Your task to perform on an android device: change your default location settings in chrome Image 0: 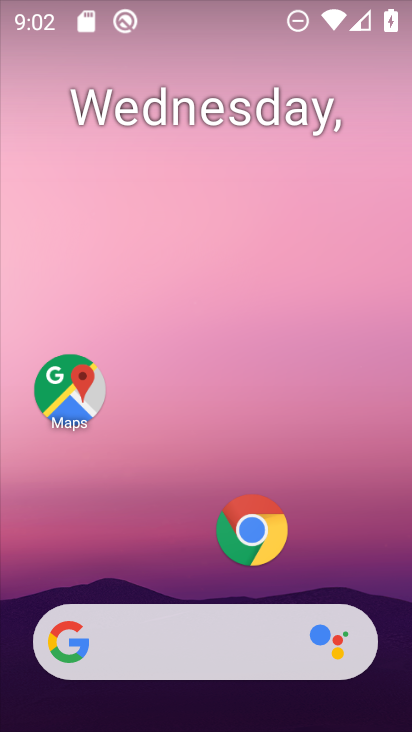
Step 0: click (254, 547)
Your task to perform on an android device: change your default location settings in chrome Image 1: 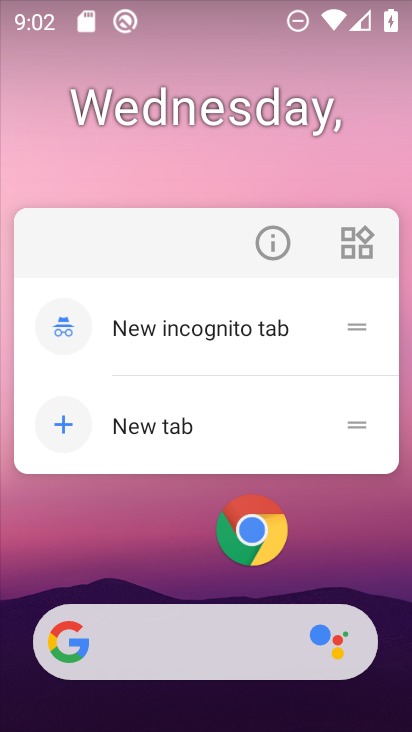
Step 1: click (258, 532)
Your task to perform on an android device: change your default location settings in chrome Image 2: 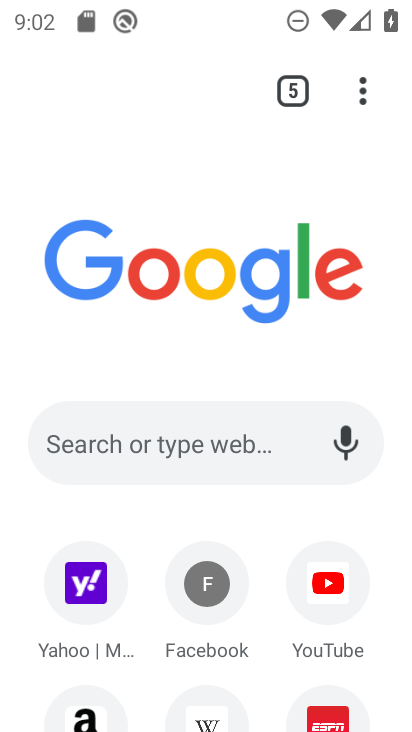
Step 2: drag from (366, 85) to (103, 561)
Your task to perform on an android device: change your default location settings in chrome Image 3: 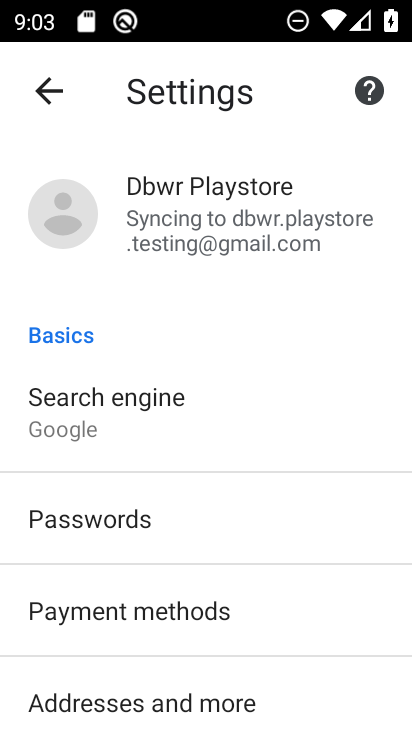
Step 3: drag from (150, 702) to (172, 249)
Your task to perform on an android device: change your default location settings in chrome Image 4: 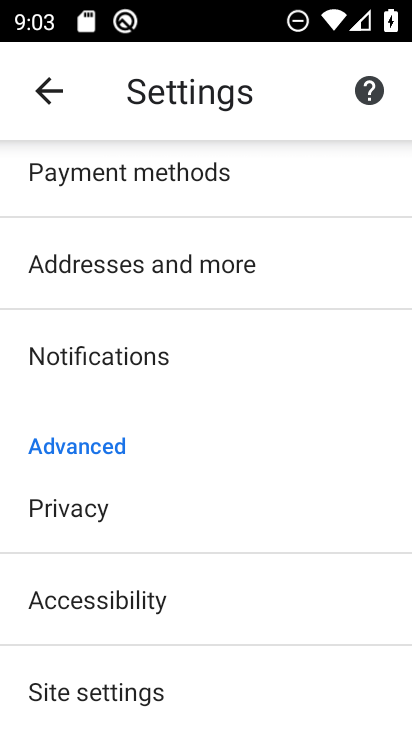
Step 4: drag from (118, 604) to (157, 326)
Your task to perform on an android device: change your default location settings in chrome Image 5: 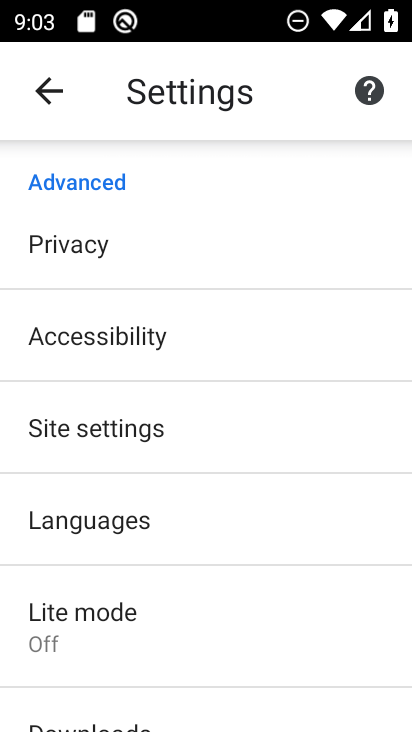
Step 5: click (137, 428)
Your task to perform on an android device: change your default location settings in chrome Image 6: 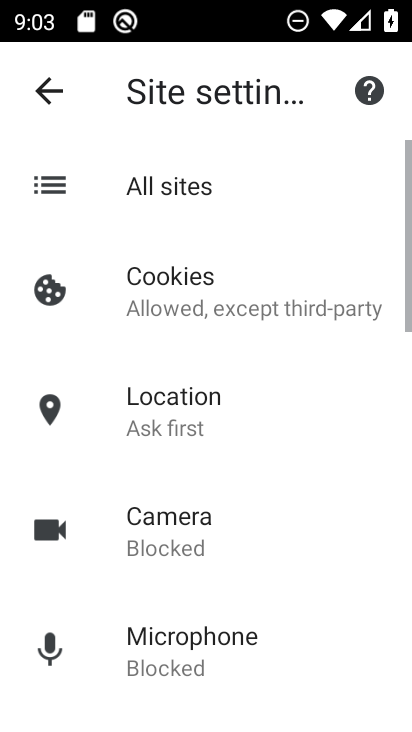
Step 6: click (168, 394)
Your task to perform on an android device: change your default location settings in chrome Image 7: 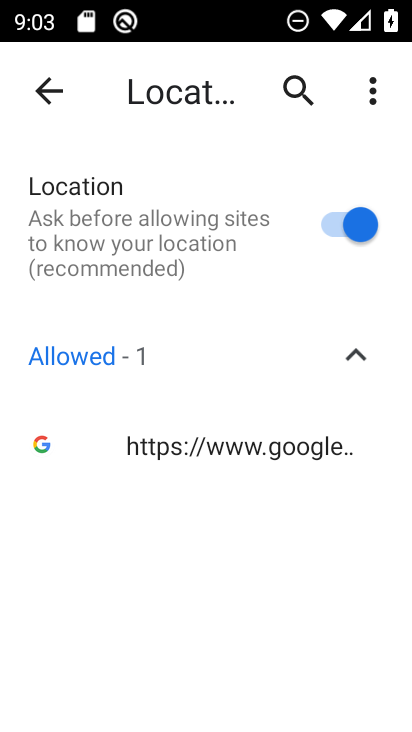
Step 7: click (293, 458)
Your task to perform on an android device: change your default location settings in chrome Image 8: 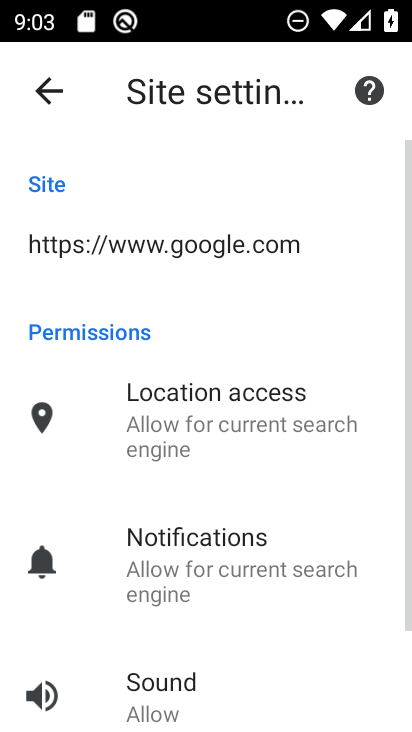
Step 8: click (197, 386)
Your task to perform on an android device: change your default location settings in chrome Image 9: 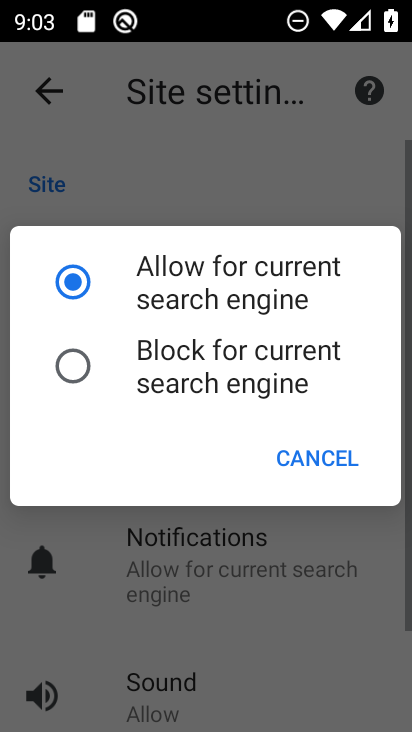
Step 9: click (220, 370)
Your task to perform on an android device: change your default location settings in chrome Image 10: 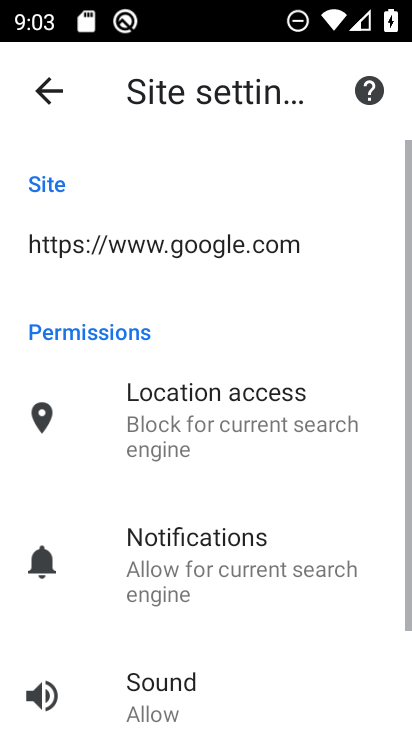
Step 10: task complete